Your task to perform on an android device: Find coffee shops on Maps Image 0: 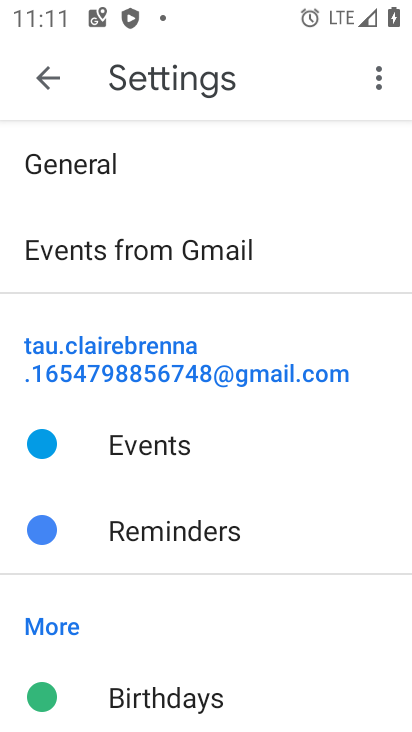
Step 0: press home button
Your task to perform on an android device: Find coffee shops on Maps Image 1: 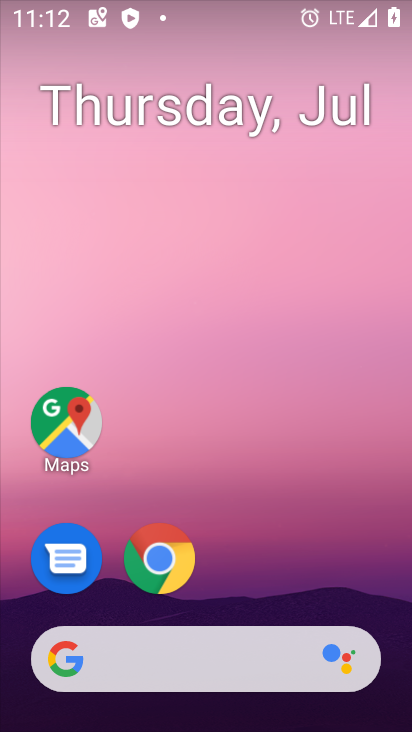
Step 1: drag from (331, 563) to (325, 32)
Your task to perform on an android device: Find coffee shops on Maps Image 2: 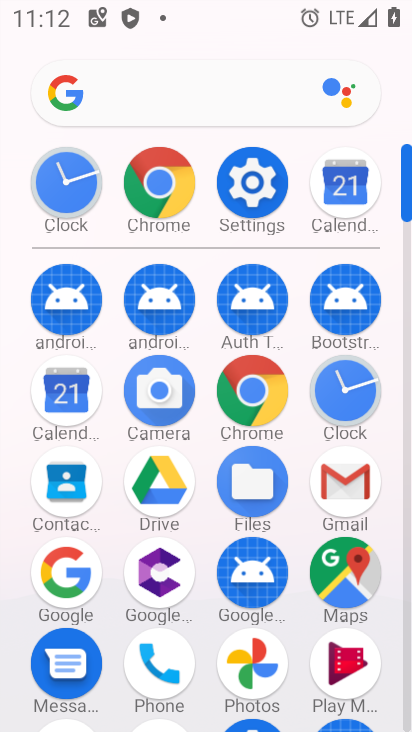
Step 2: click (347, 582)
Your task to perform on an android device: Find coffee shops on Maps Image 3: 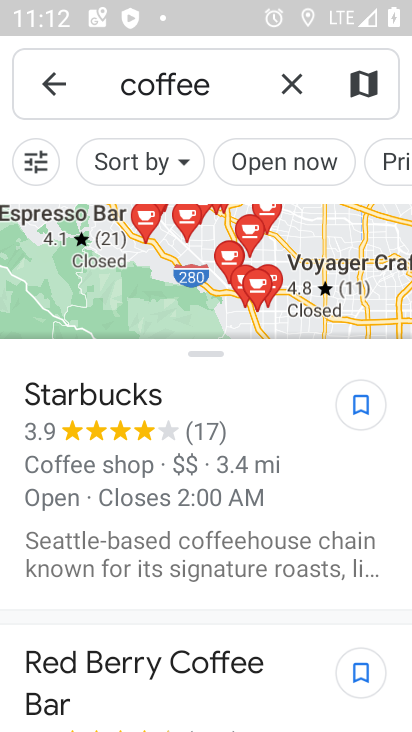
Step 3: task complete